Your task to perform on an android device: Do I have any events tomorrow? Image 0: 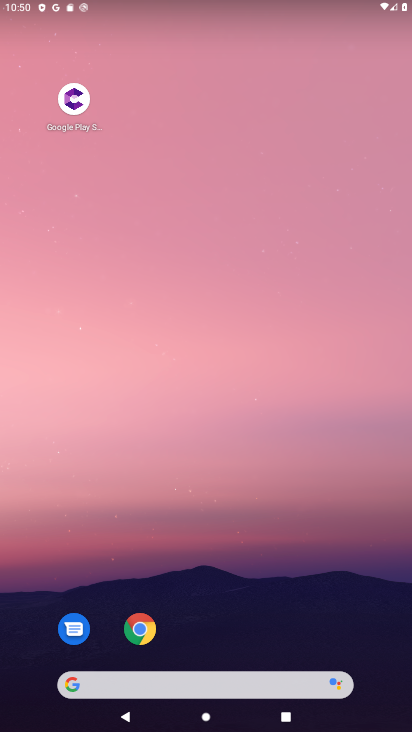
Step 0: drag from (325, 569) to (310, 383)
Your task to perform on an android device: Do I have any events tomorrow? Image 1: 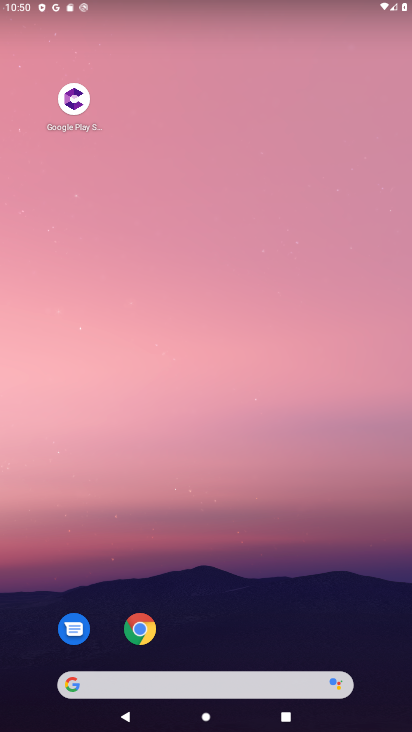
Step 1: drag from (211, 597) to (223, 296)
Your task to perform on an android device: Do I have any events tomorrow? Image 2: 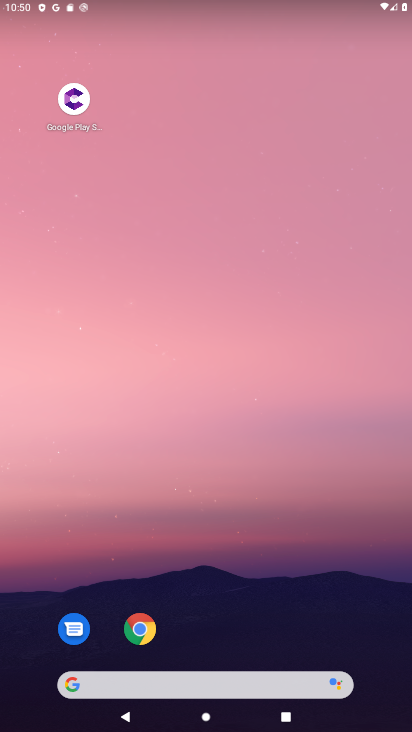
Step 2: drag from (201, 657) to (203, 263)
Your task to perform on an android device: Do I have any events tomorrow? Image 3: 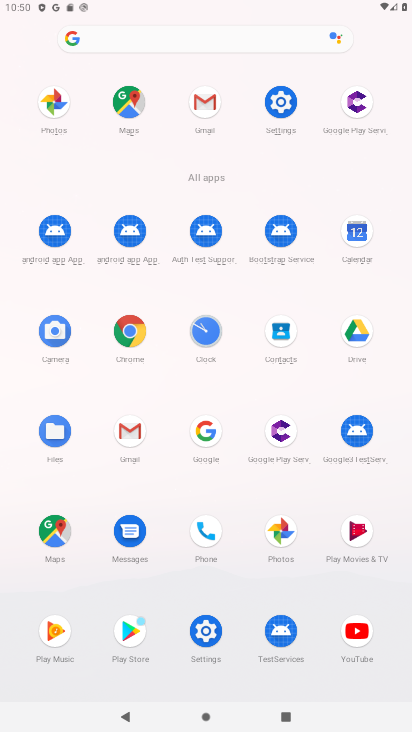
Step 3: click (351, 230)
Your task to perform on an android device: Do I have any events tomorrow? Image 4: 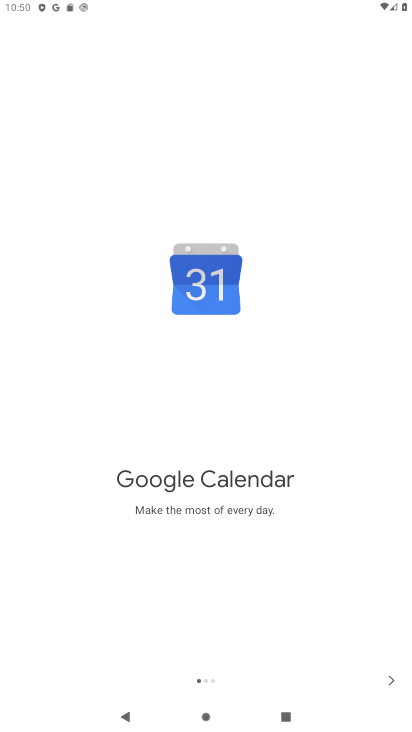
Step 4: click (376, 675)
Your task to perform on an android device: Do I have any events tomorrow? Image 5: 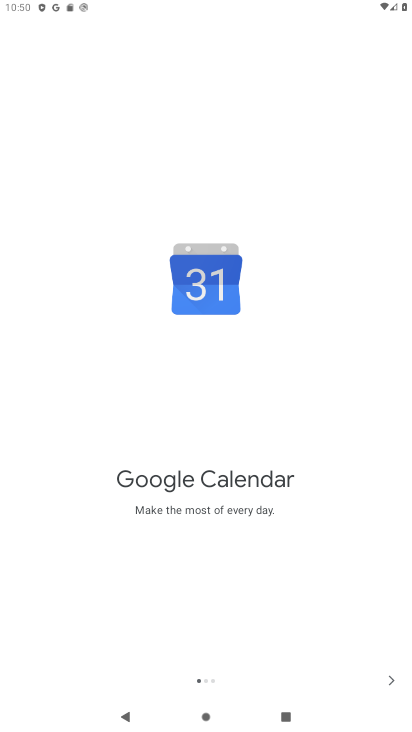
Step 5: click (376, 675)
Your task to perform on an android device: Do I have any events tomorrow? Image 6: 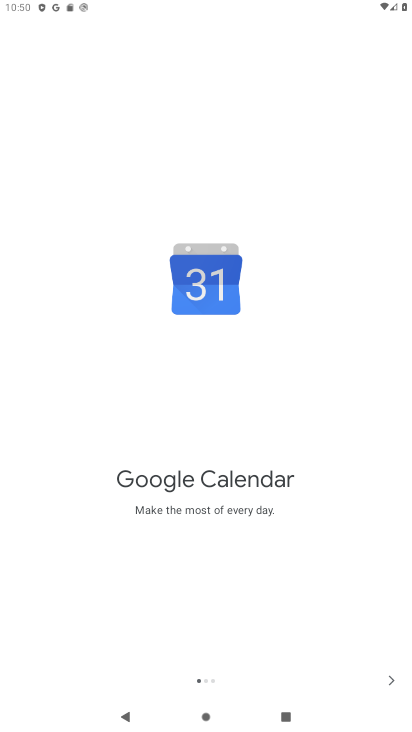
Step 6: click (376, 675)
Your task to perform on an android device: Do I have any events tomorrow? Image 7: 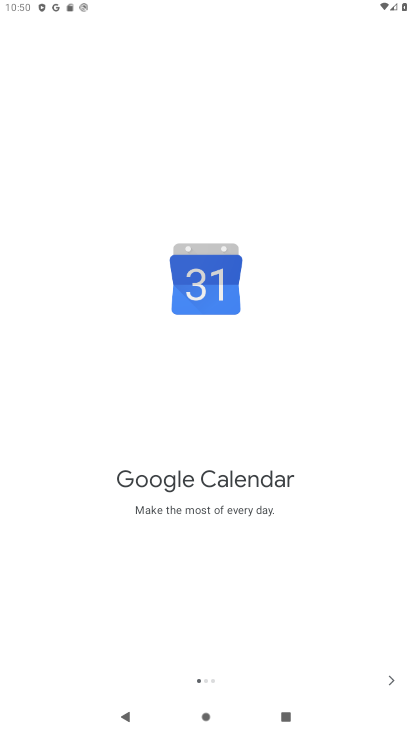
Step 7: click (391, 677)
Your task to perform on an android device: Do I have any events tomorrow? Image 8: 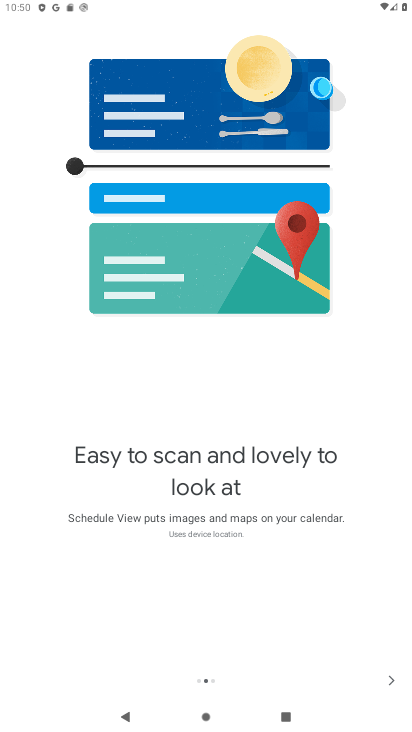
Step 8: click (391, 674)
Your task to perform on an android device: Do I have any events tomorrow? Image 9: 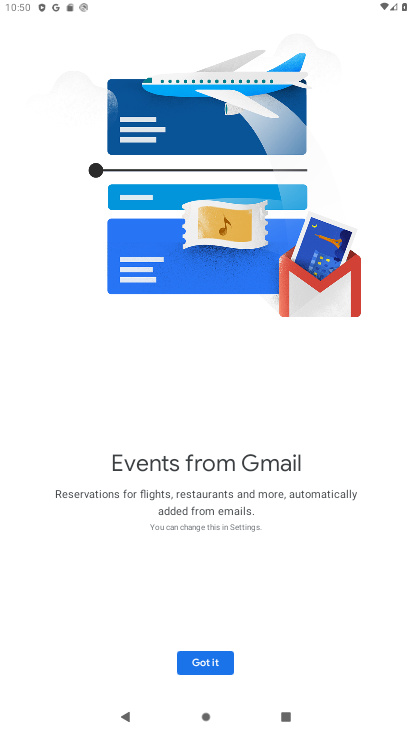
Step 9: click (213, 656)
Your task to perform on an android device: Do I have any events tomorrow? Image 10: 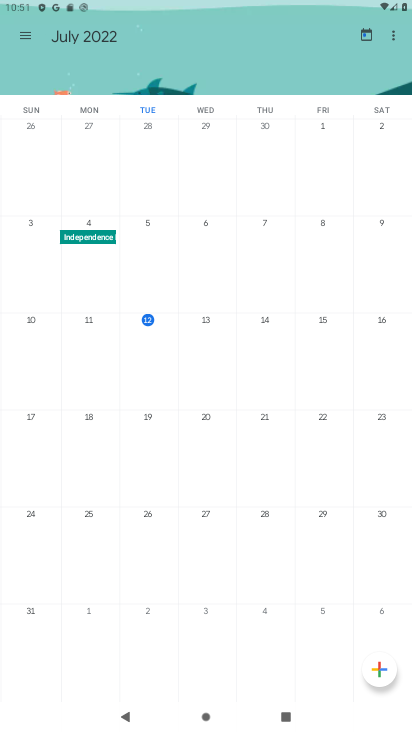
Step 10: click (263, 331)
Your task to perform on an android device: Do I have any events tomorrow? Image 11: 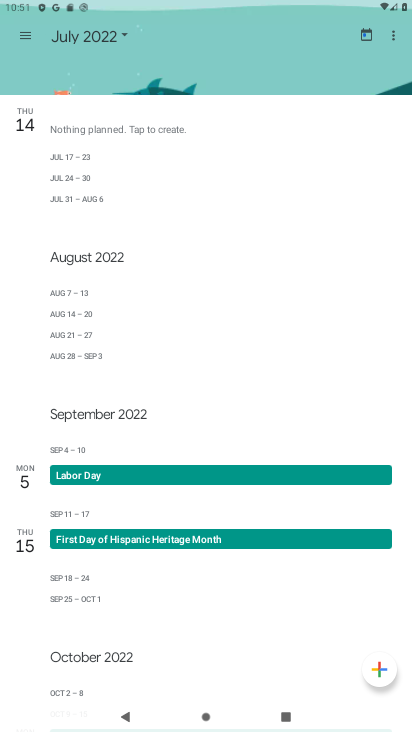
Step 11: task complete